Your task to perform on an android device: Go to wifi settings Image 0: 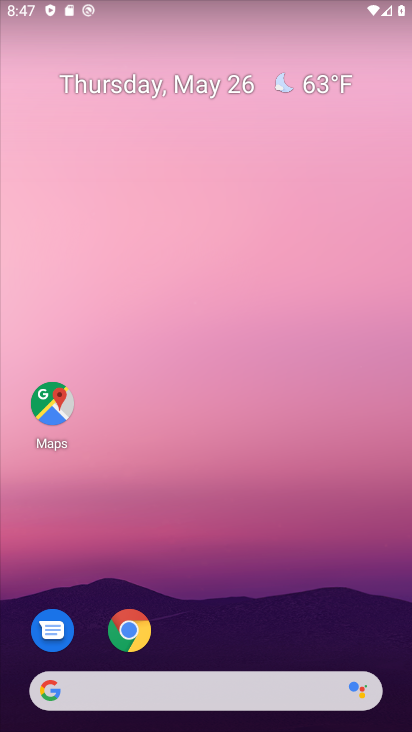
Step 0: drag from (255, 684) to (245, 119)
Your task to perform on an android device: Go to wifi settings Image 1: 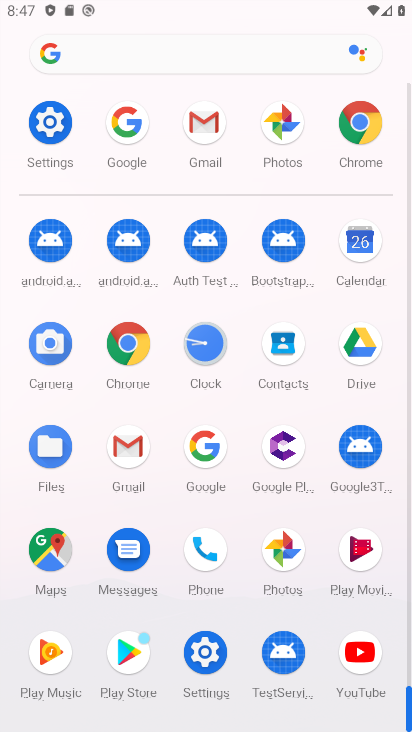
Step 1: click (196, 651)
Your task to perform on an android device: Go to wifi settings Image 2: 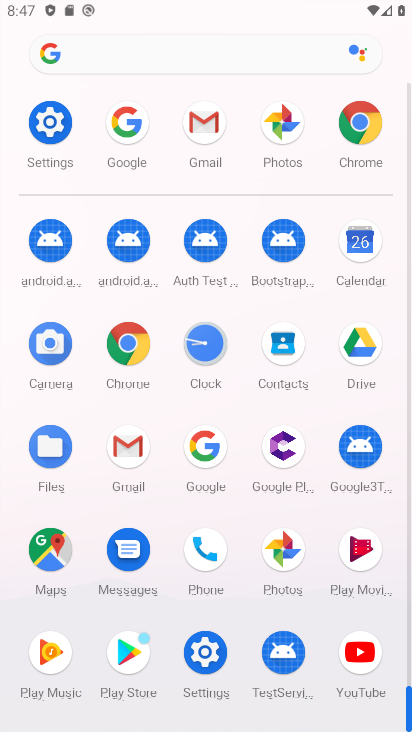
Step 2: click (208, 643)
Your task to perform on an android device: Go to wifi settings Image 3: 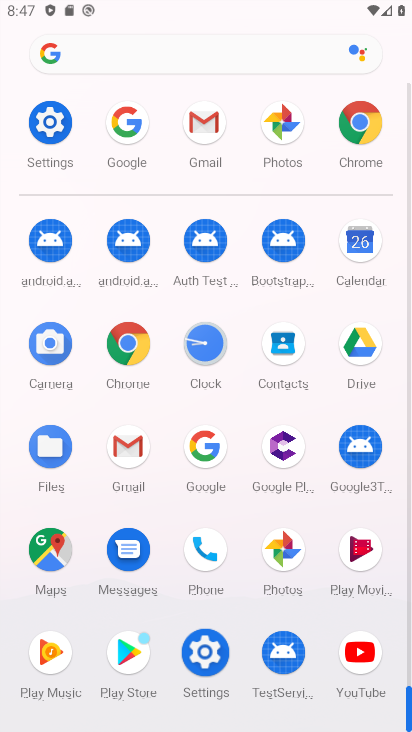
Step 3: click (209, 643)
Your task to perform on an android device: Go to wifi settings Image 4: 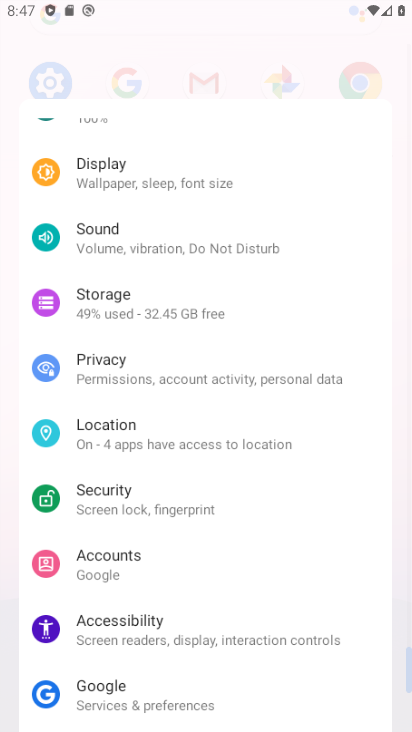
Step 4: click (214, 626)
Your task to perform on an android device: Go to wifi settings Image 5: 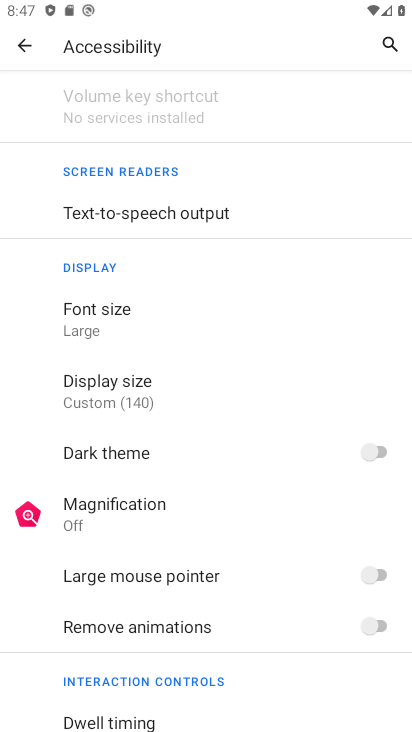
Step 5: click (21, 30)
Your task to perform on an android device: Go to wifi settings Image 6: 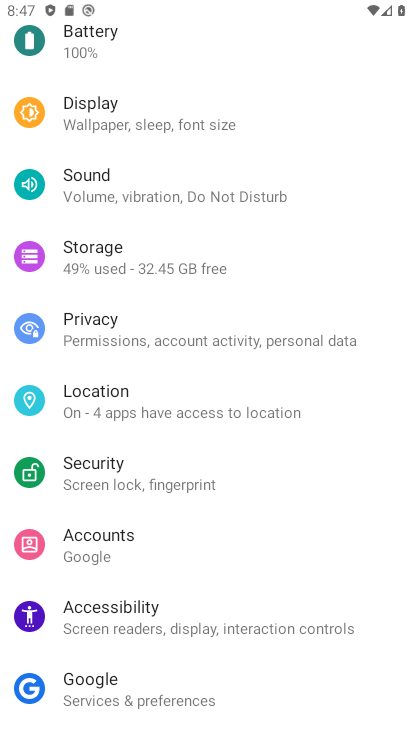
Step 6: drag from (129, 327) to (129, 582)
Your task to perform on an android device: Go to wifi settings Image 7: 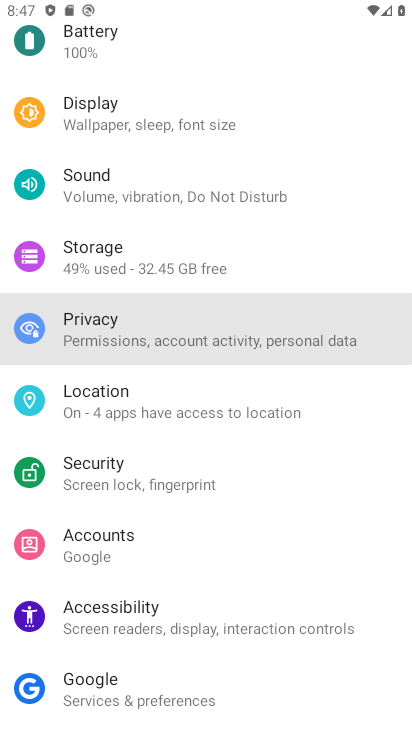
Step 7: drag from (150, 328) to (181, 640)
Your task to perform on an android device: Go to wifi settings Image 8: 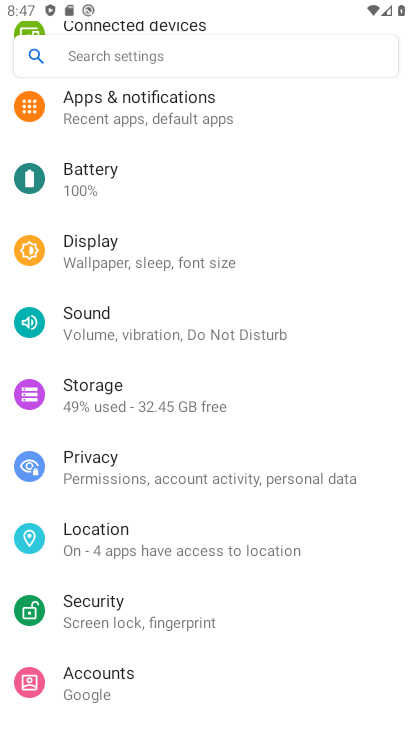
Step 8: press back button
Your task to perform on an android device: Go to wifi settings Image 9: 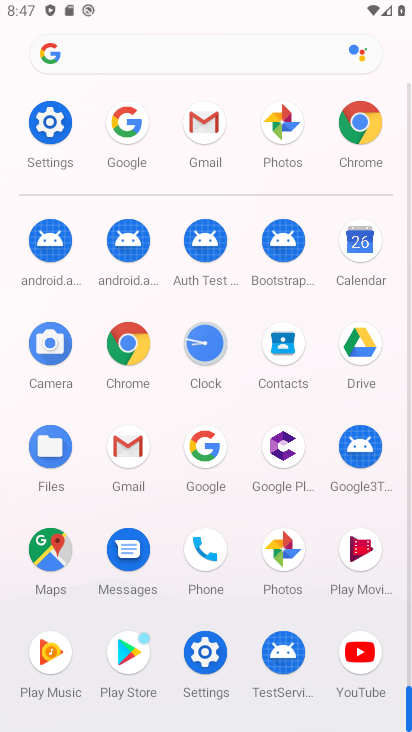
Step 9: click (51, 118)
Your task to perform on an android device: Go to wifi settings Image 10: 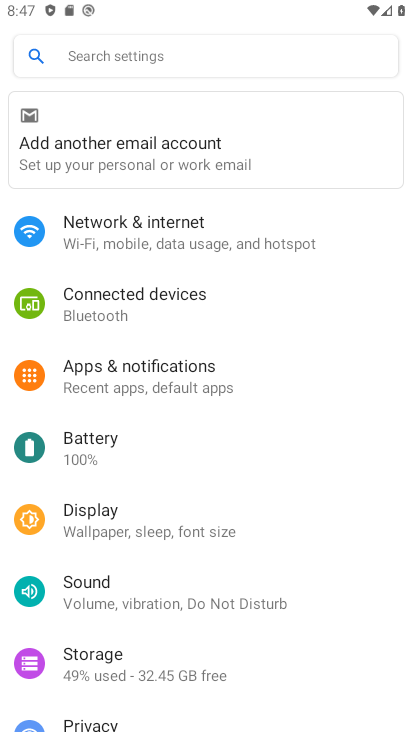
Step 10: click (120, 234)
Your task to perform on an android device: Go to wifi settings Image 11: 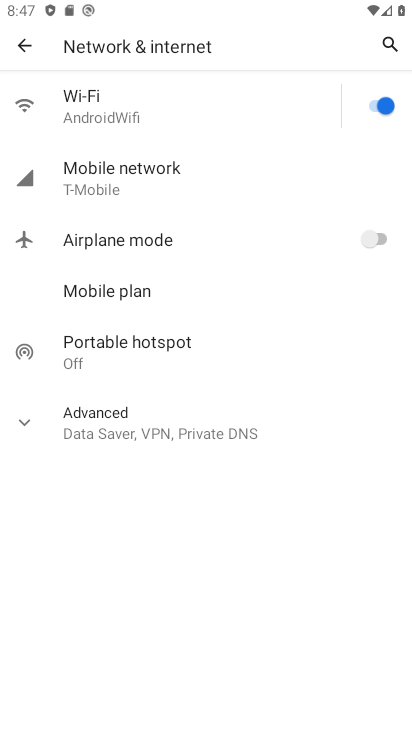
Step 11: task complete